Your task to perform on an android device: turn off javascript in the chrome app Image 0: 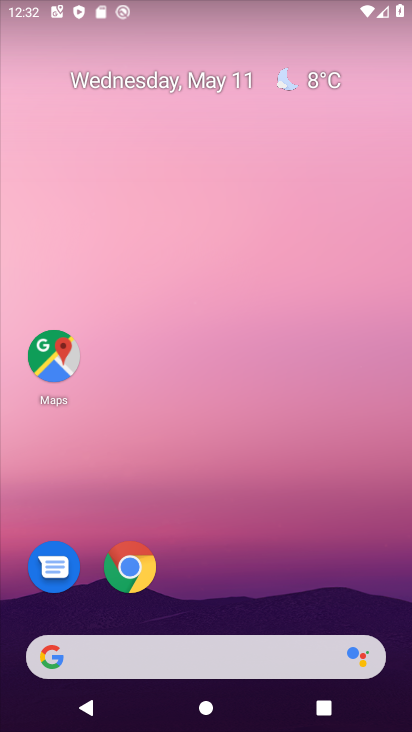
Step 0: click (119, 584)
Your task to perform on an android device: turn off javascript in the chrome app Image 1: 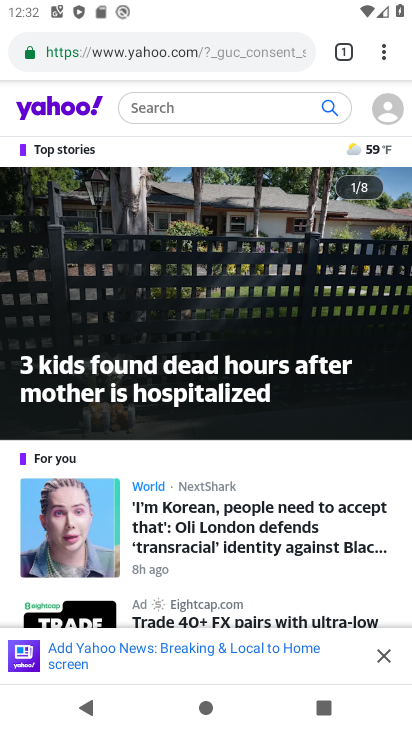
Step 1: drag from (390, 36) to (240, 609)
Your task to perform on an android device: turn off javascript in the chrome app Image 2: 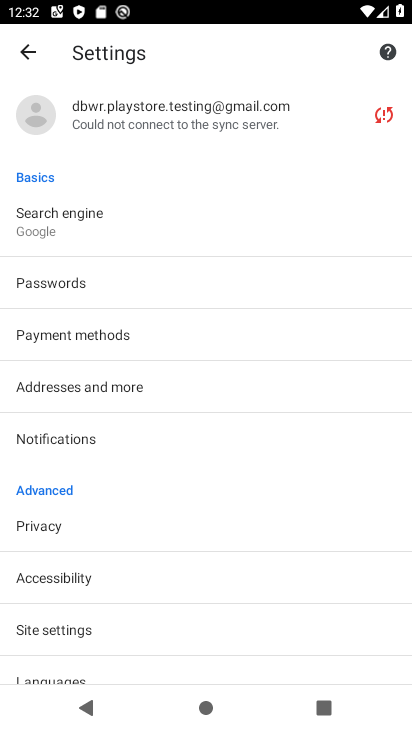
Step 2: drag from (156, 652) to (184, 552)
Your task to perform on an android device: turn off javascript in the chrome app Image 3: 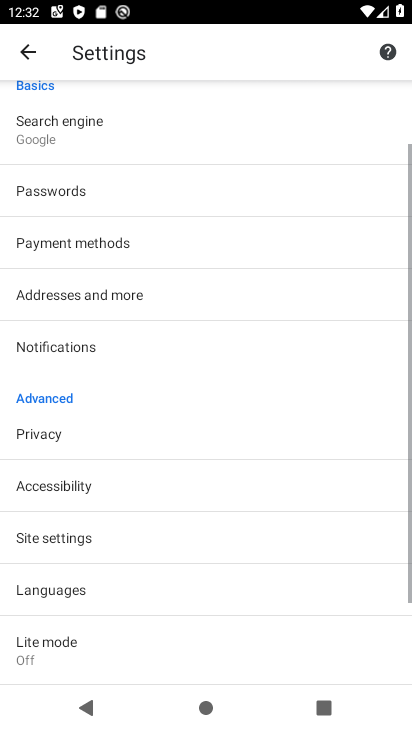
Step 3: click (169, 546)
Your task to perform on an android device: turn off javascript in the chrome app Image 4: 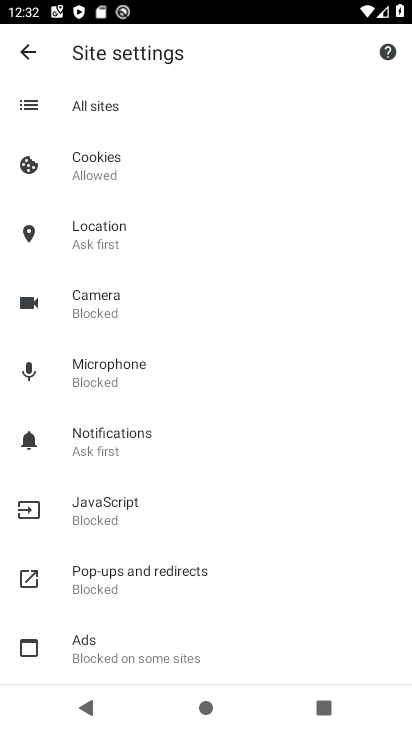
Step 4: click (178, 520)
Your task to perform on an android device: turn off javascript in the chrome app Image 5: 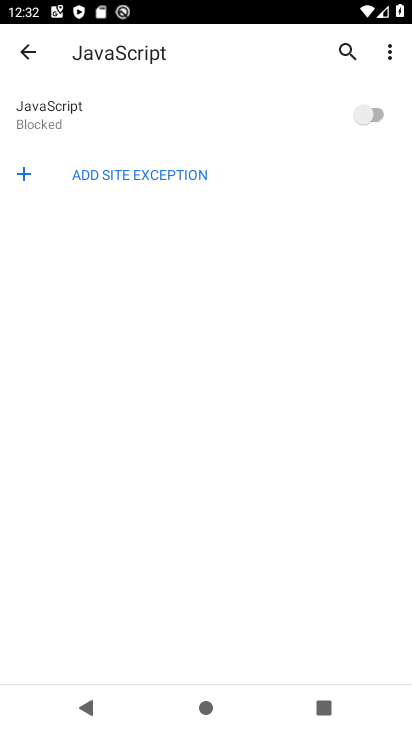
Step 5: task complete